Your task to perform on an android device: Open settings on Google Maps Image 0: 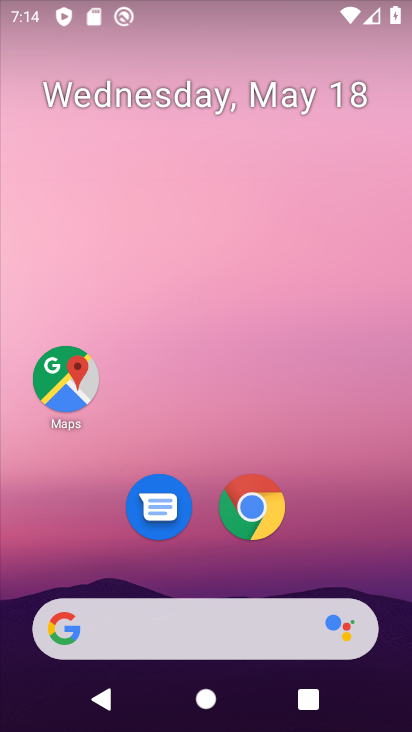
Step 0: drag from (242, 656) to (184, 309)
Your task to perform on an android device: Open settings on Google Maps Image 1: 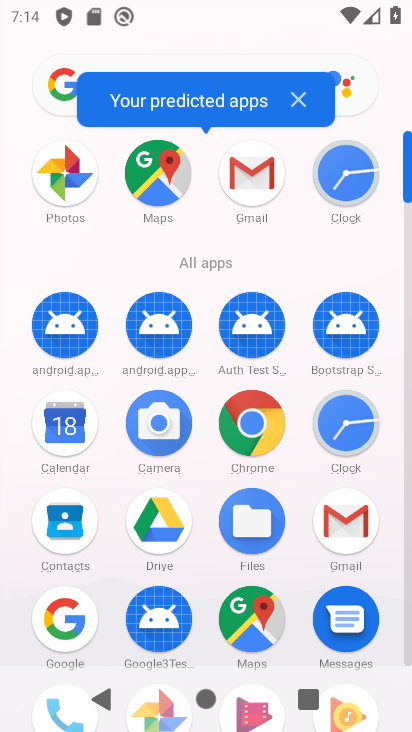
Step 1: click (267, 620)
Your task to perform on an android device: Open settings on Google Maps Image 2: 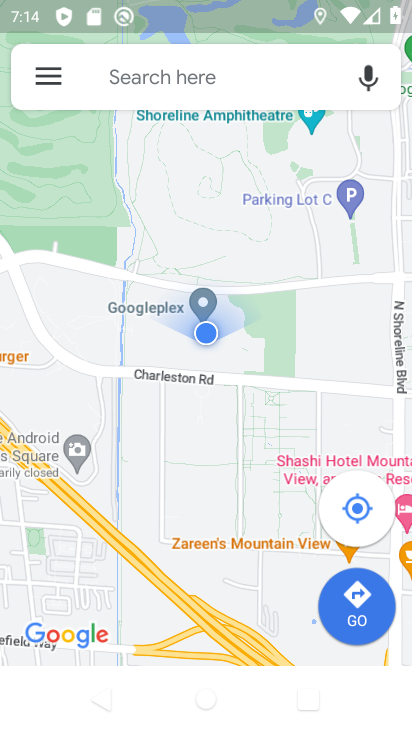
Step 2: task complete